Your task to perform on an android device: open wifi settings Image 0: 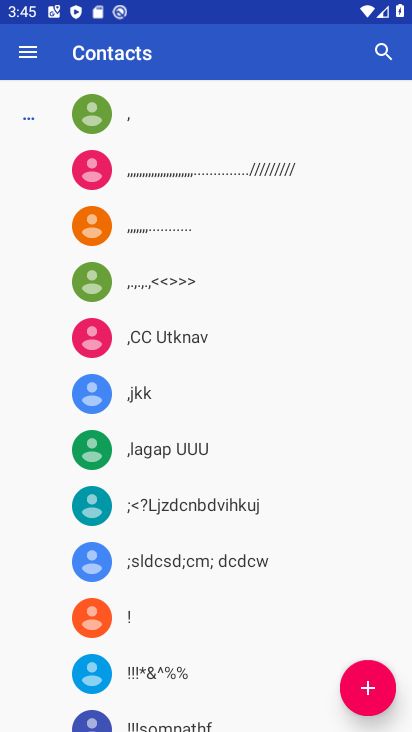
Step 0: press back button
Your task to perform on an android device: open wifi settings Image 1: 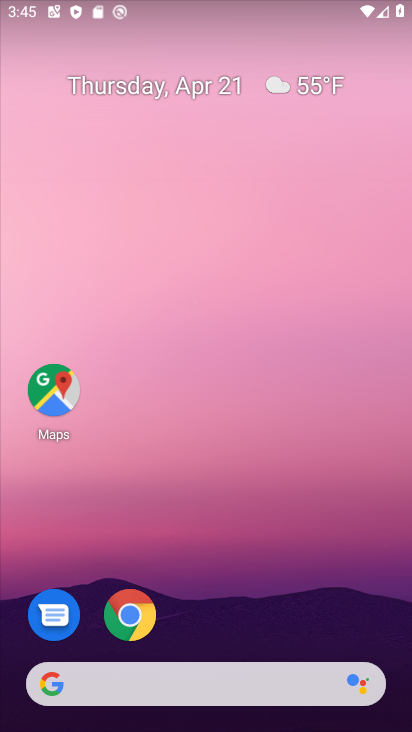
Step 1: drag from (241, 561) to (160, 24)
Your task to perform on an android device: open wifi settings Image 2: 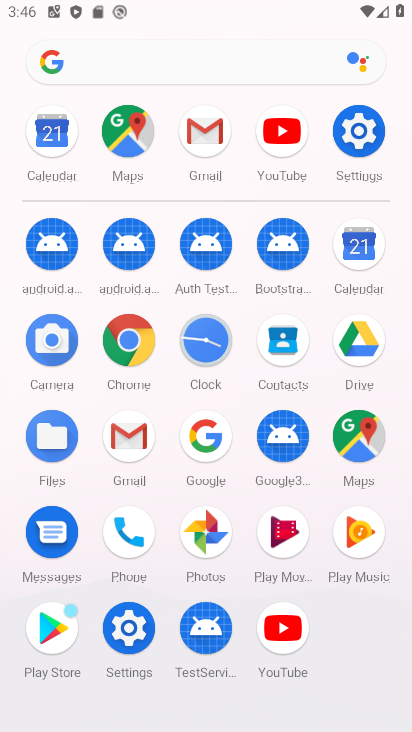
Step 2: click (127, 628)
Your task to perform on an android device: open wifi settings Image 3: 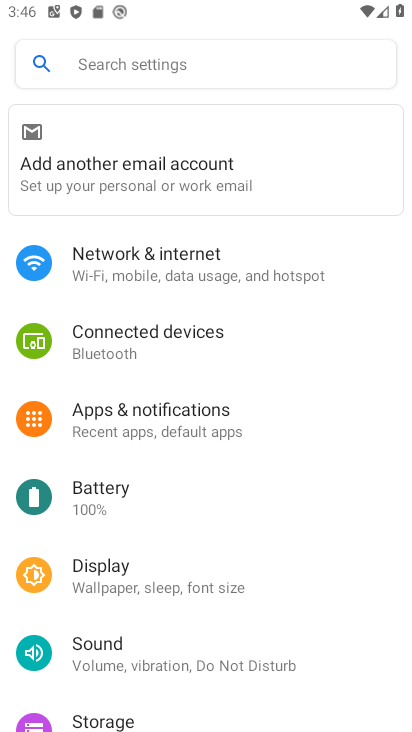
Step 3: click (159, 255)
Your task to perform on an android device: open wifi settings Image 4: 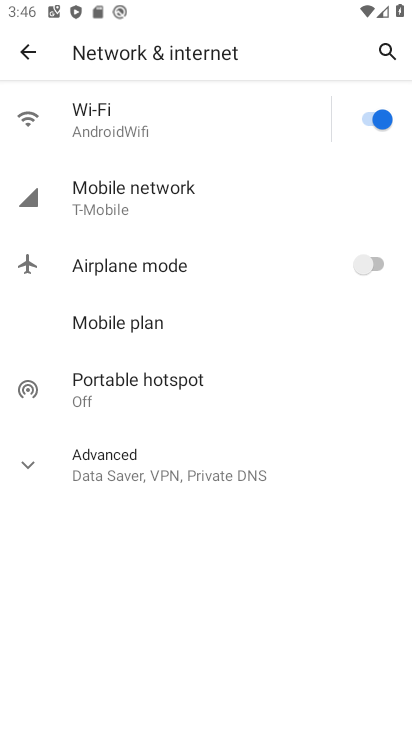
Step 4: click (132, 125)
Your task to perform on an android device: open wifi settings Image 5: 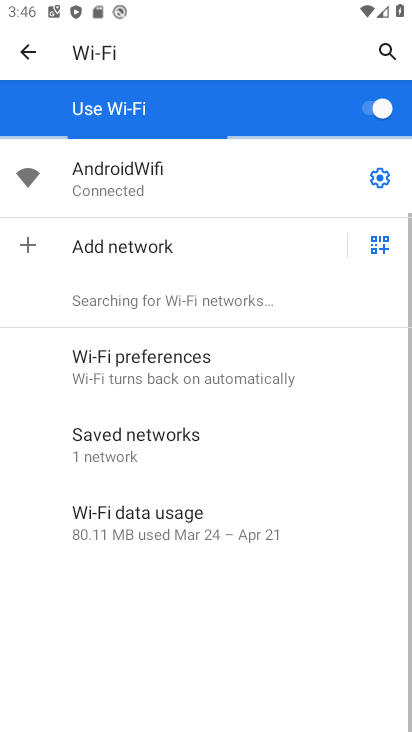
Step 5: task complete